Your task to perform on an android device: move a message to another label in the gmail app Image 0: 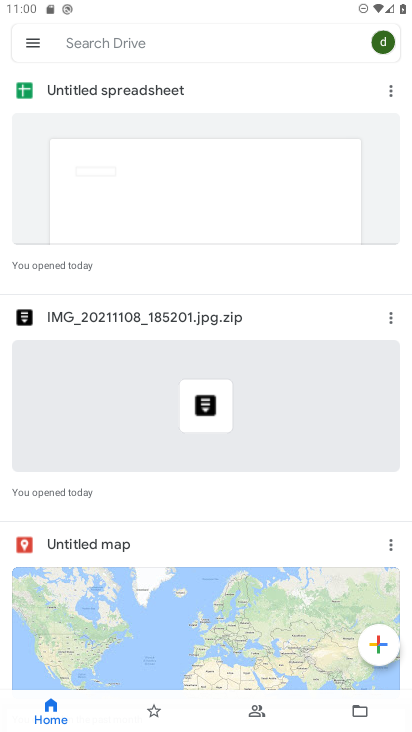
Step 0: press home button
Your task to perform on an android device: move a message to another label in the gmail app Image 1: 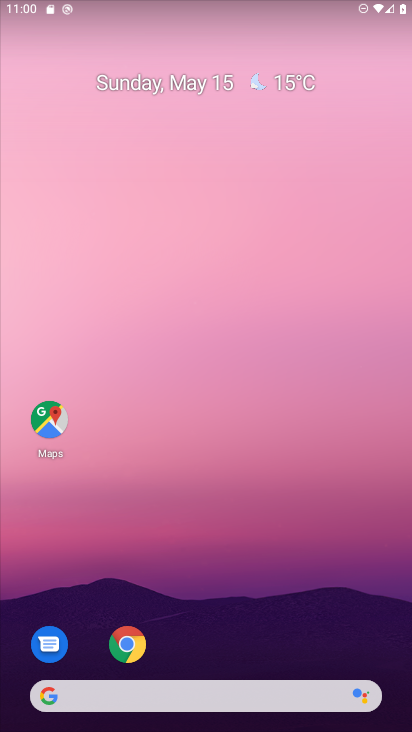
Step 1: drag from (158, 677) to (205, 220)
Your task to perform on an android device: move a message to another label in the gmail app Image 2: 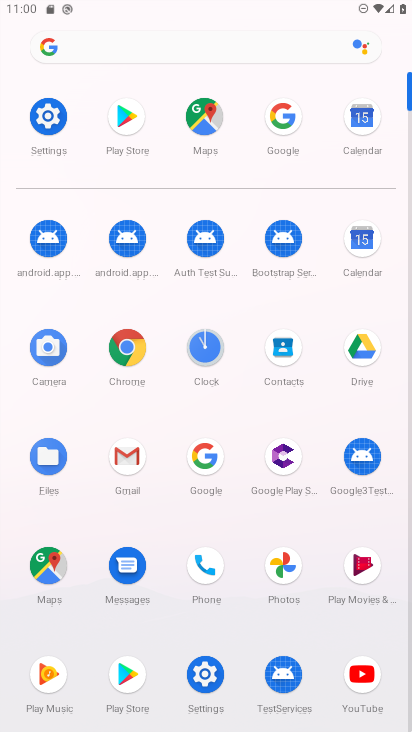
Step 2: click (131, 462)
Your task to perform on an android device: move a message to another label in the gmail app Image 3: 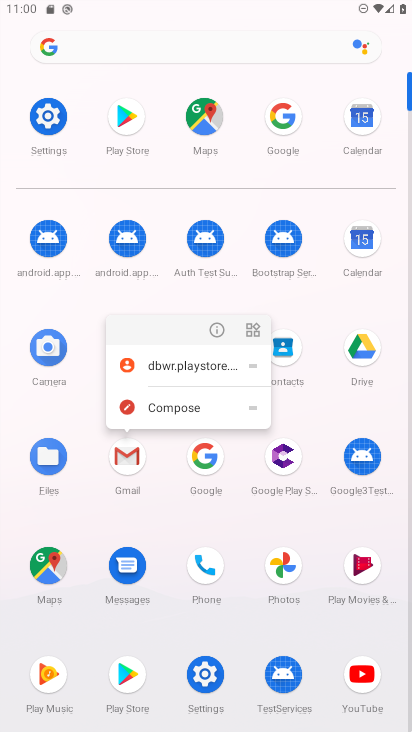
Step 3: click (134, 460)
Your task to perform on an android device: move a message to another label in the gmail app Image 4: 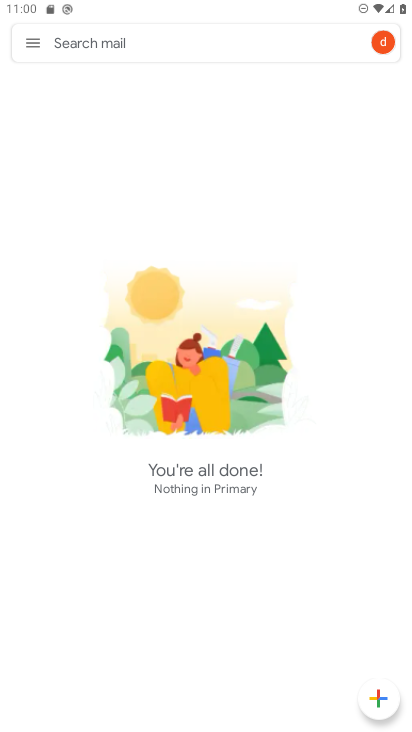
Step 4: task complete